Your task to perform on an android device: Open sound settings Image 0: 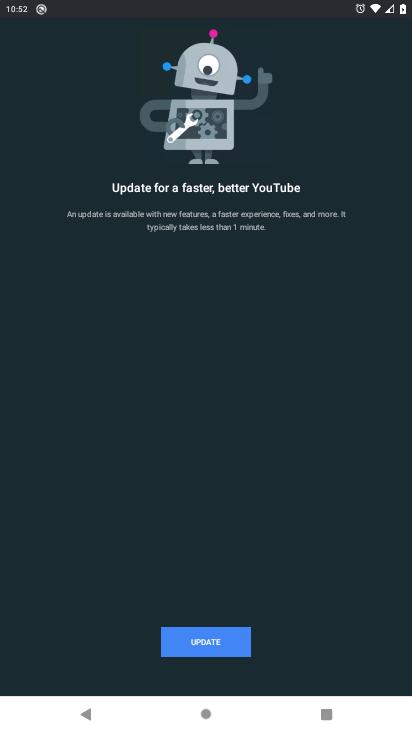
Step 0: press home button
Your task to perform on an android device: Open sound settings Image 1: 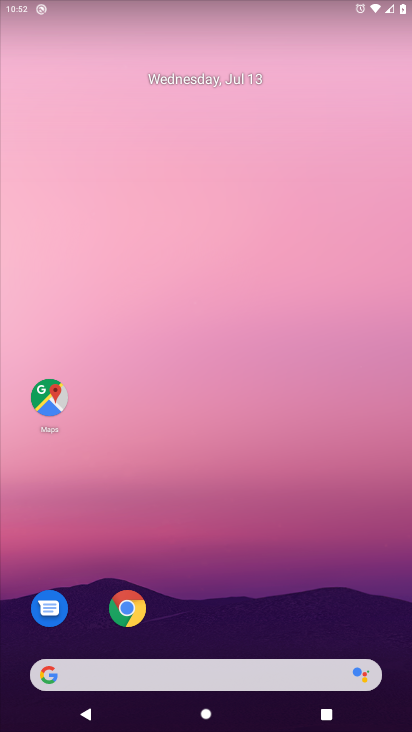
Step 1: drag from (79, 554) to (200, 115)
Your task to perform on an android device: Open sound settings Image 2: 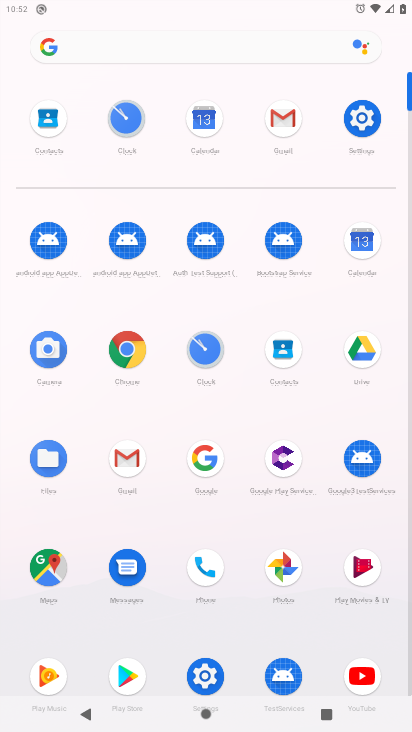
Step 2: click (206, 680)
Your task to perform on an android device: Open sound settings Image 3: 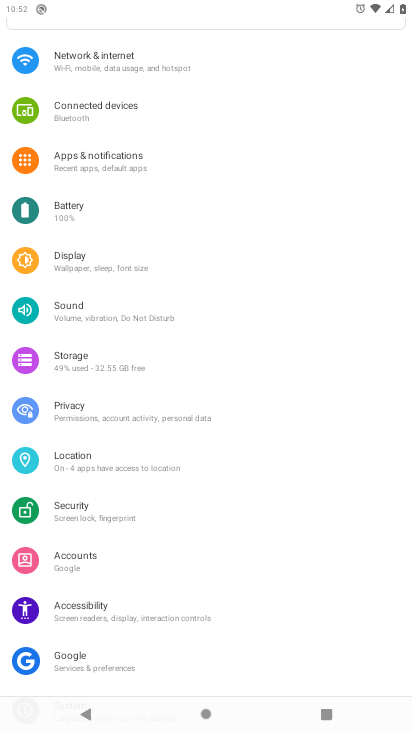
Step 3: click (88, 299)
Your task to perform on an android device: Open sound settings Image 4: 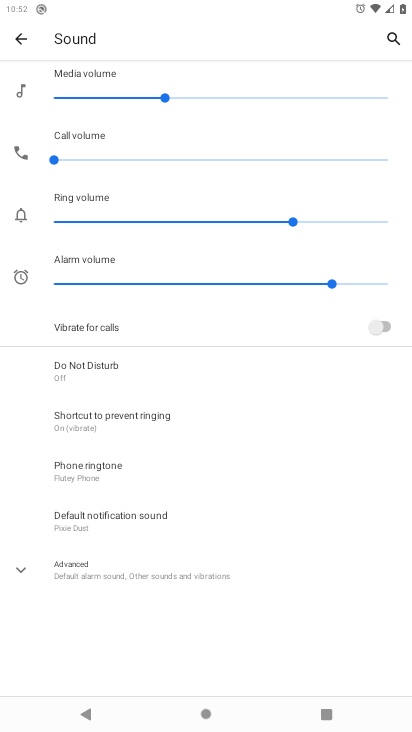
Step 4: task complete